Your task to perform on an android device: add a contact Image 0: 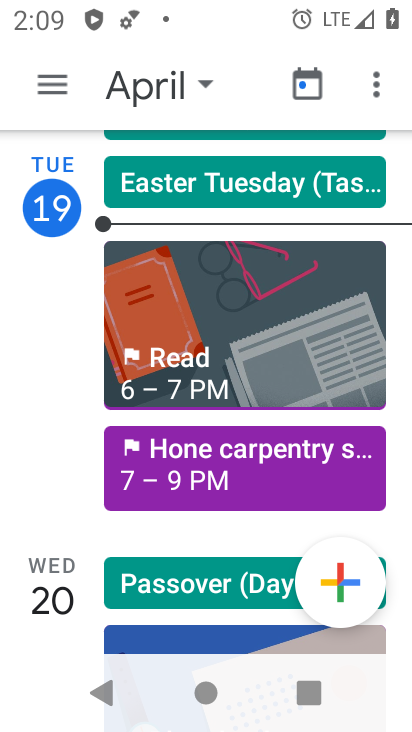
Step 0: press home button
Your task to perform on an android device: add a contact Image 1: 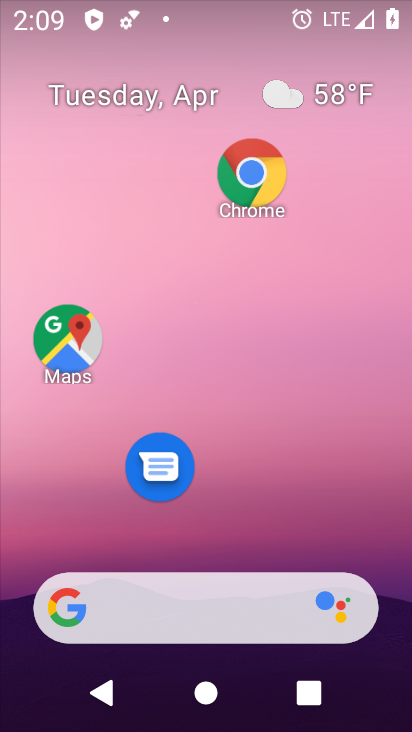
Step 1: drag from (228, 542) to (242, 14)
Your task to perform on an android device: add a contact Image 2: 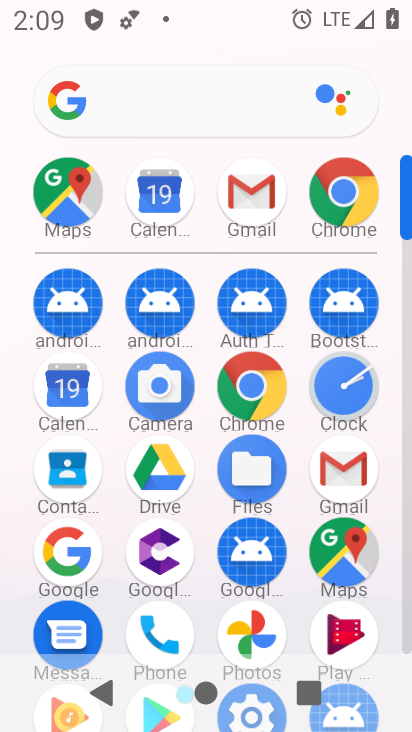
Step 2: drag from (295, 645) to (280, 280)
Your task to perform on an android device: add a contact Image 3: 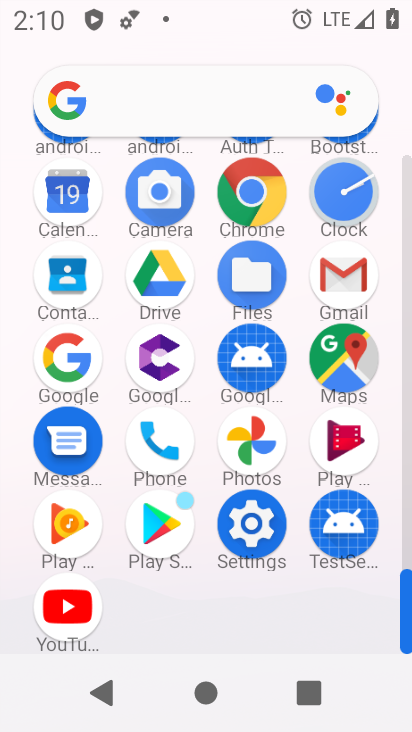
Step 3: click (68, 275)
Your task to perform on an android device: add a contact Image 4: 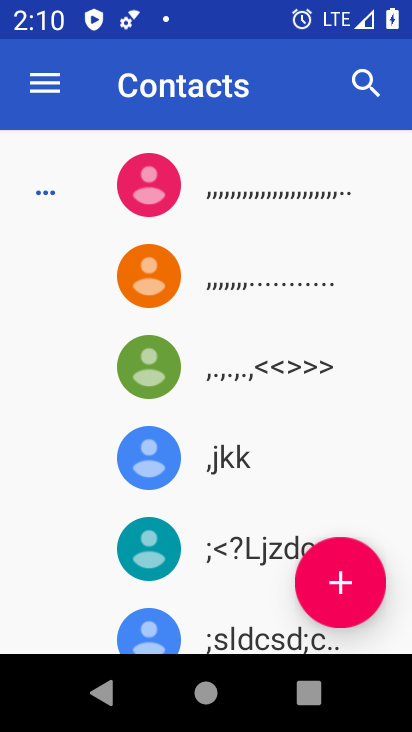
Step 4: click (349, 583)
Your task to perform on an android device: add a contact Image 5: 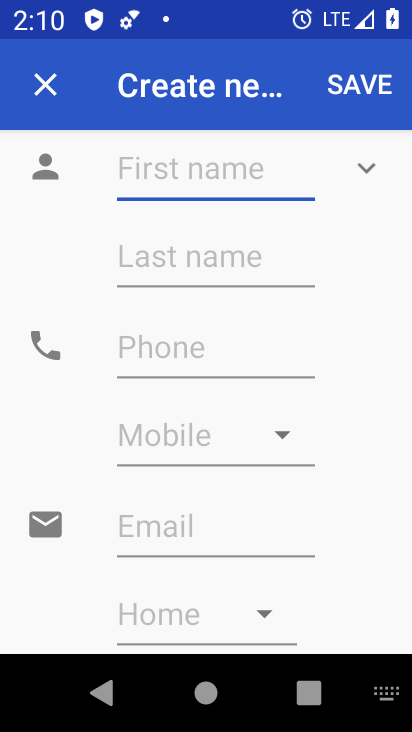
Step 5: click (254, 164)
Your task to perform on an android device: add a contact Image 6: 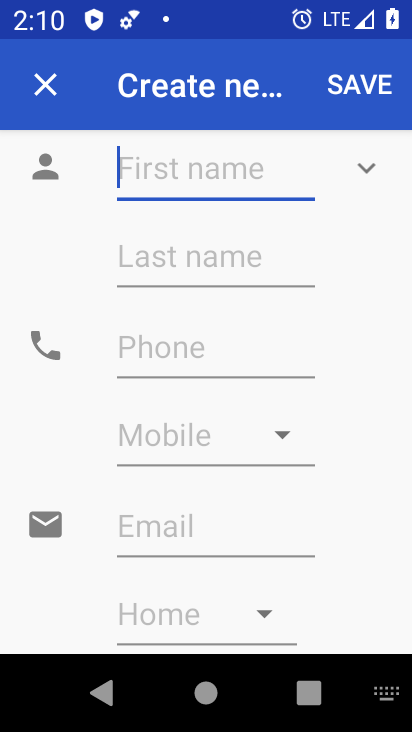
Step 6: type "dsfdffgf"
Your task to perform on an android device: add a contact Image 7: 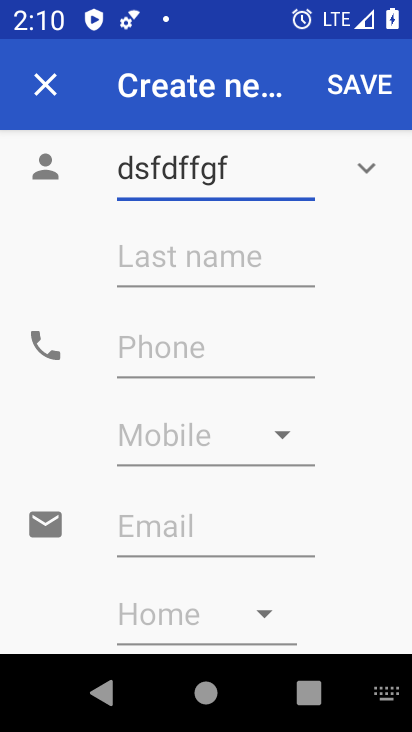
Step 7: click (224, 351)
Your task to perform on an android device: add a contact Image 8: 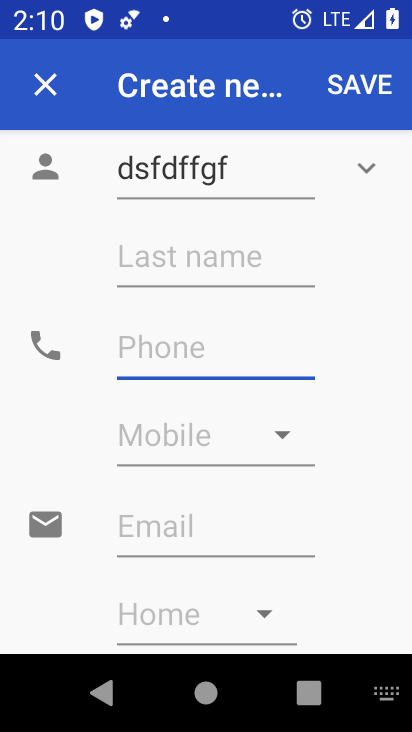
Step 8: type "98987665555"
Your task to perform on an android device: add a contact Image 9: 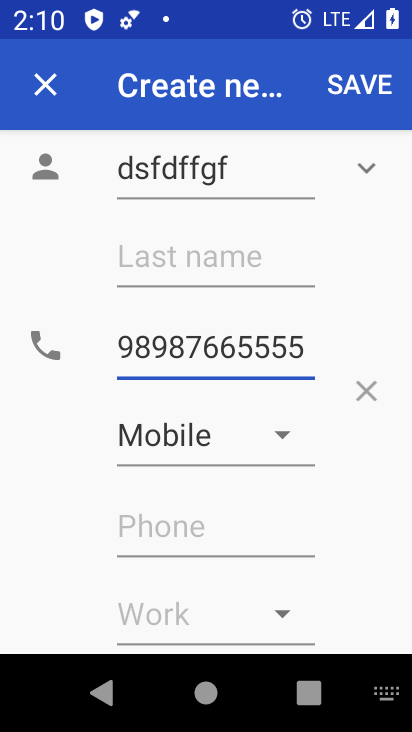
Step 9: click (365, 82)
Your task to perform on an android device: add a contact Image 10: 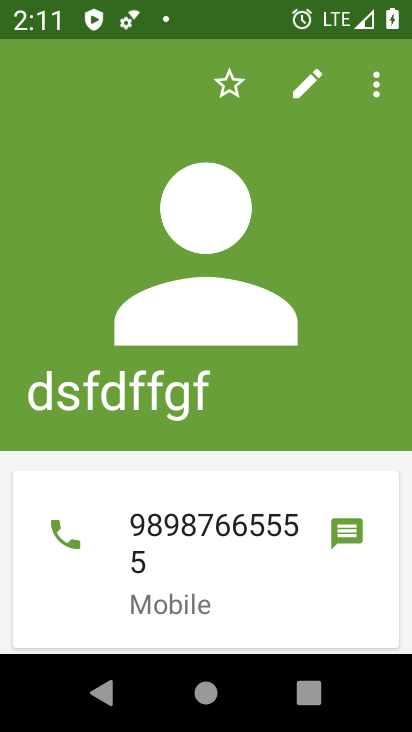
Step 10: task complete